Your task to perform on an android device: When is my next meeting? Image 0: 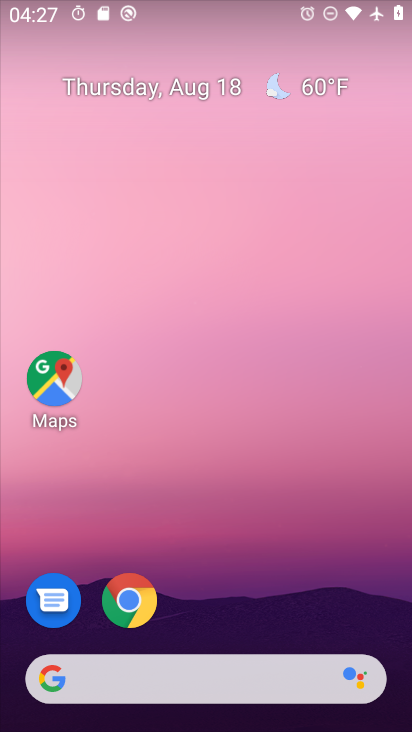
Step 0: press home button
Your task to perform on an android device: When is my next meeting? Image 1: 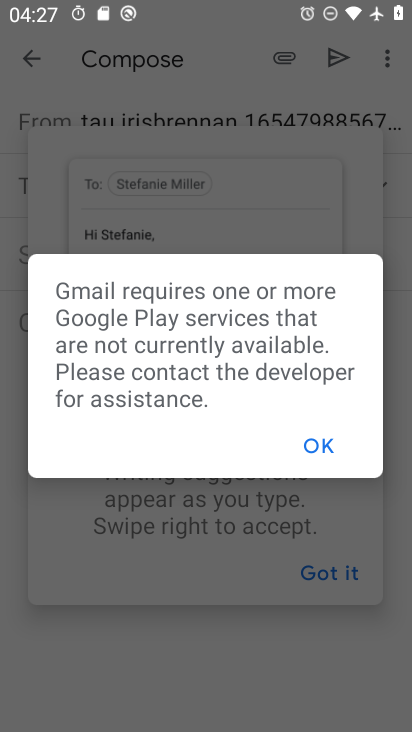
Step 1: click (397, 627)
Your task to perform on an android device: When is my next meeting? Image 2: 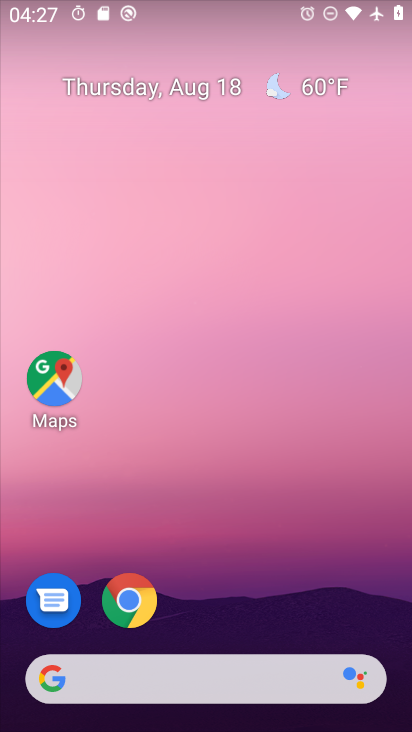
Step 2: drag from (246, 622) to (236, 50)
Your task to perform on an android device: When is my next meeting? Image 3: 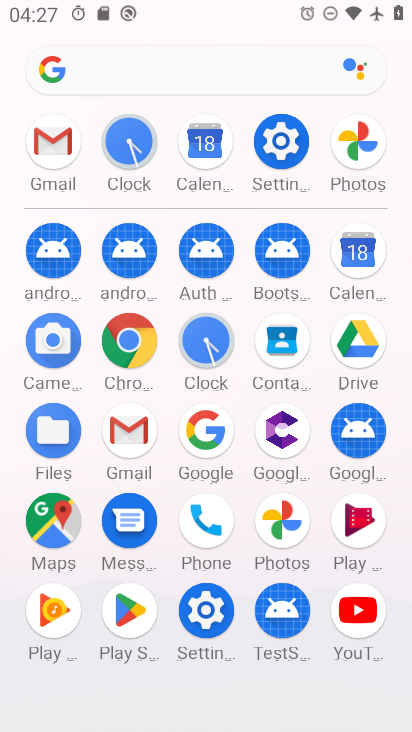
Step 3: click (205, 155)
Your task to perform on an android device: When is my next meeting? Image 4: 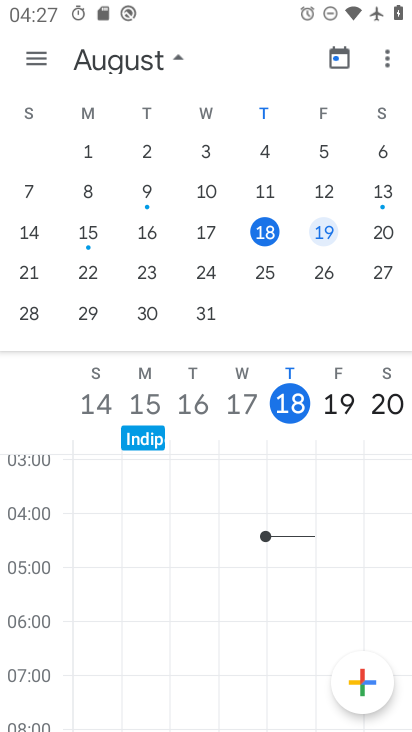
Step 4: click (43, 56)
Your task to perform on an android device: When is my next meeting? Image 5: 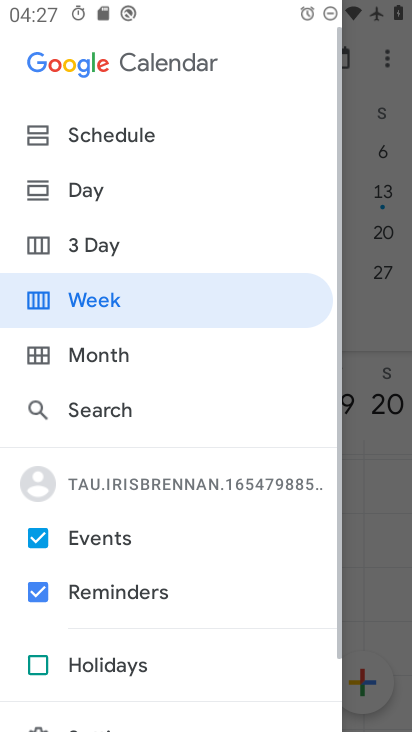
Step 5: click (88, 137)
Your task to perform on an android device: When is my next meeting? Image 6: 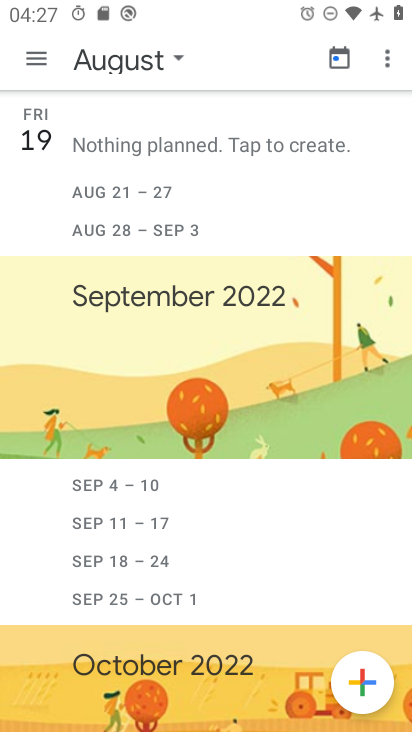
Step 6: task complete